Your task to perform on an android device: What's the latest video from Game Informer? Image 0: 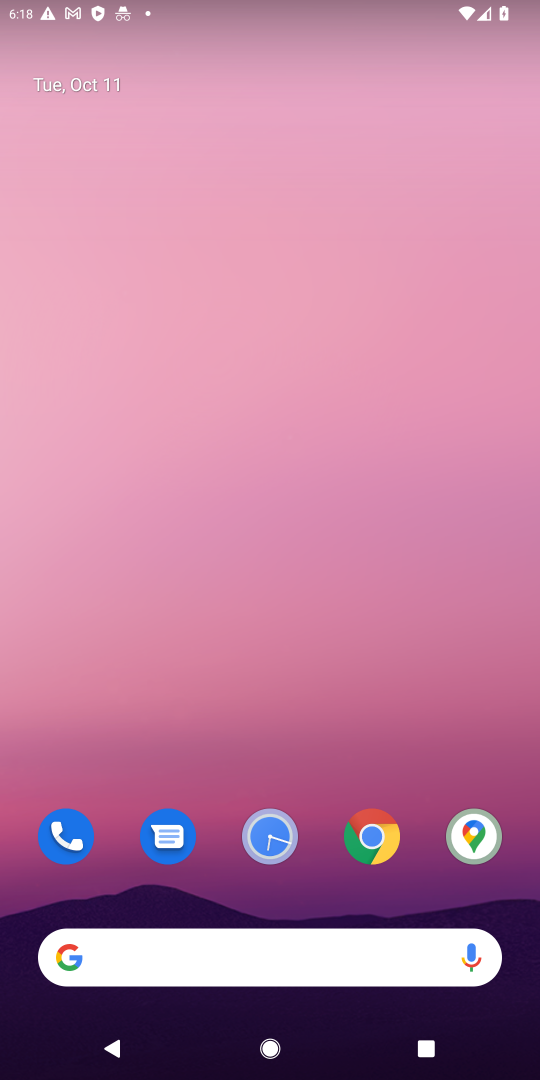
Step 0: drag from (426, 881) to (398, 55)
Your task to perform on an android device: What's the latest video from Game Informer? Image 1: 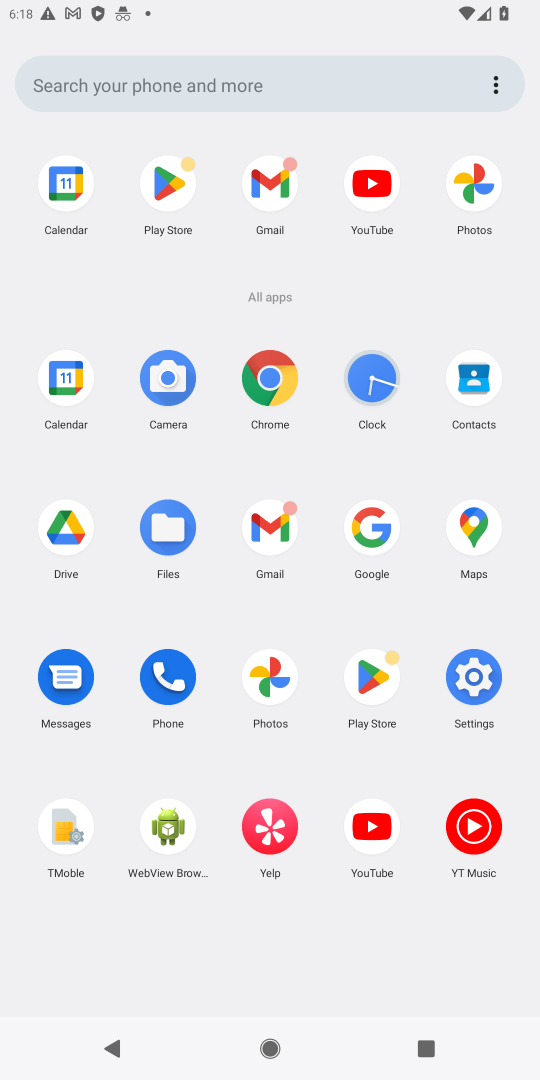
Step 1: click (369, 830)
Your task to perform on an android device: What's the latest video from Game Informer? Image 2: 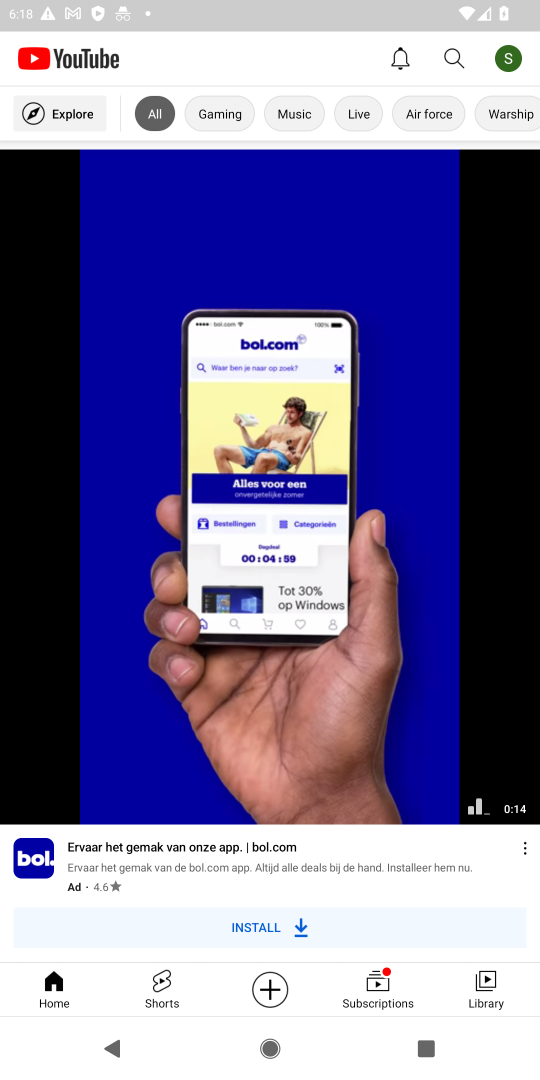
Step 2: click (448, 54)
Your task to perform on an android device: What's the latest video from Game Informer? Image 3: 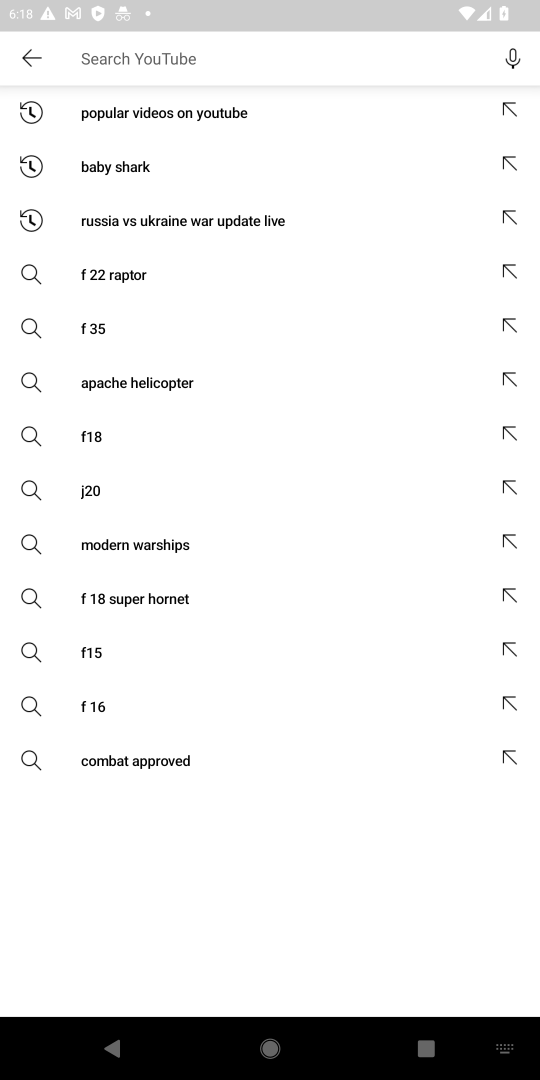
Step 3: type "Game informer"
Your task to perform on an android device: What's the latest video from Game Informer? Image 4: 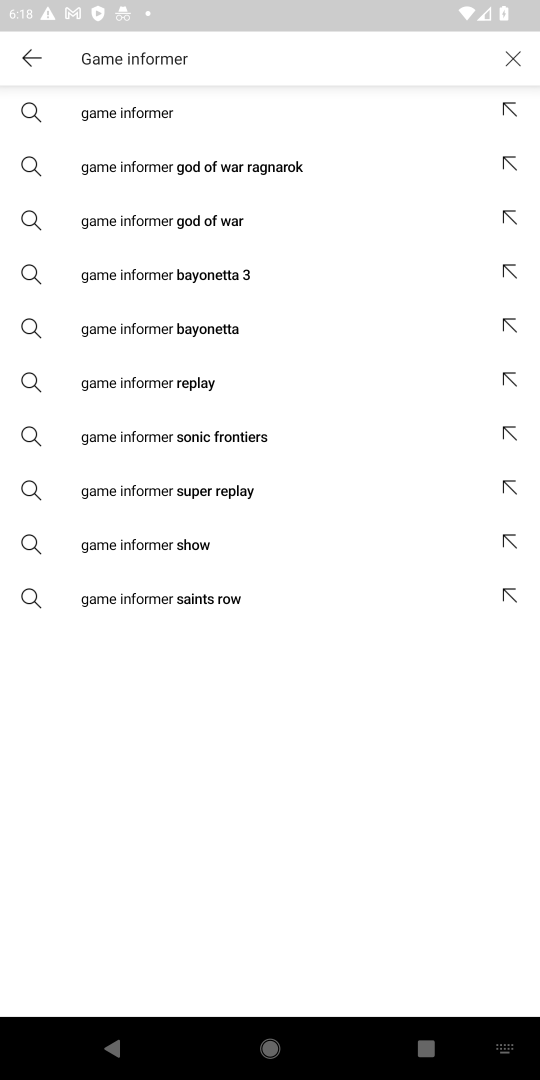
Step 4: click (128, 107)
Your task to perform on an android device: What's the latest video from Game Informer? Image 5: 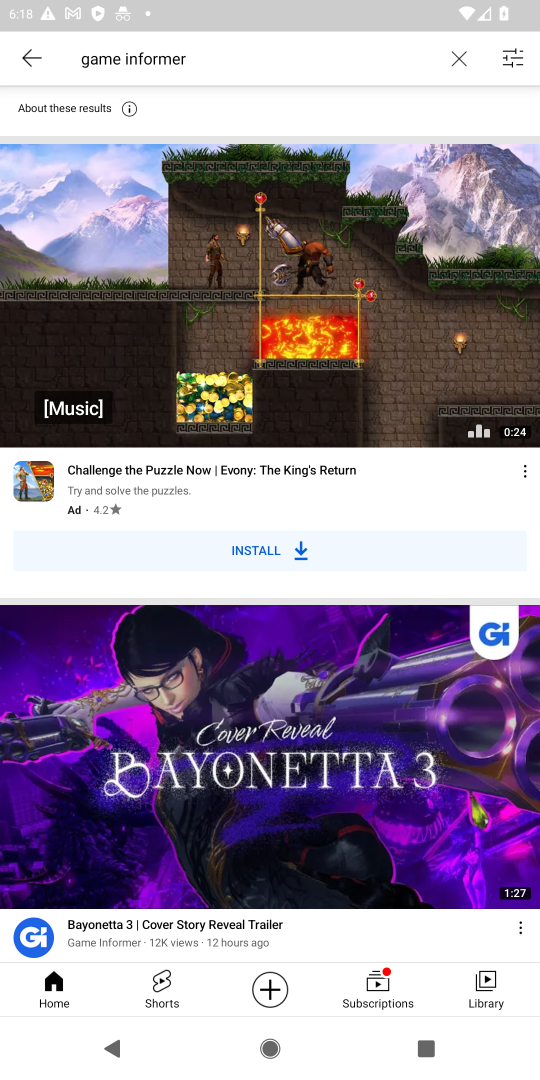
Step 5: drag from (322, 584) to (330, 245)
Your task to perform on an android device: What's the latest video from Game Informer? Image 6: 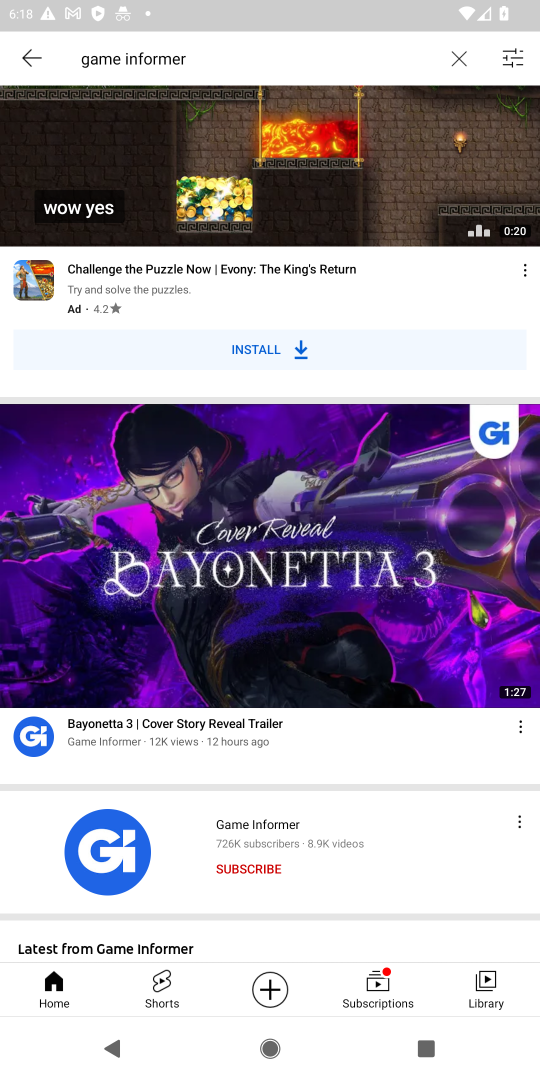
Step 6: click (253, 823)
Your task to perform on an android device: What's the latest video from Game Informer? Image 7: 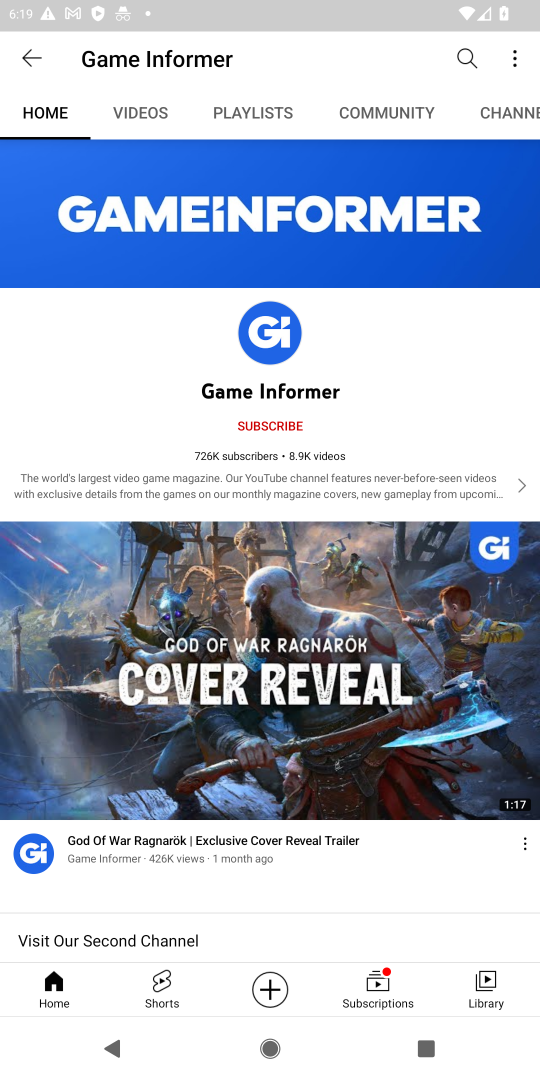
Step 7: click (144, 116)
Your task to perform on an android device: What's the latest video from Game Informer? Image 8: 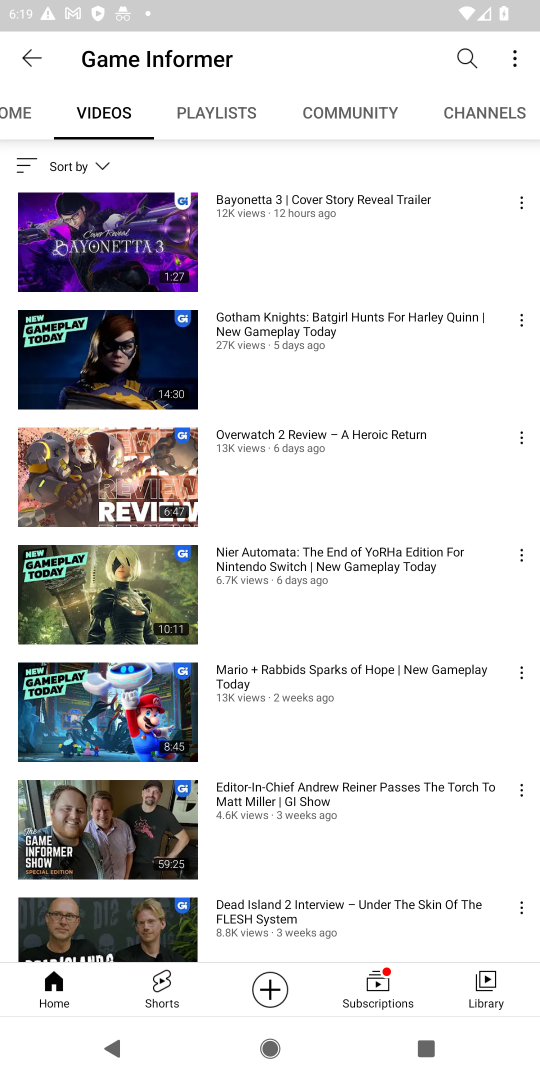
Step 8: click (147, 242)
Your task to perform on an android device: What's the latest video from Game Informer? Image 9: 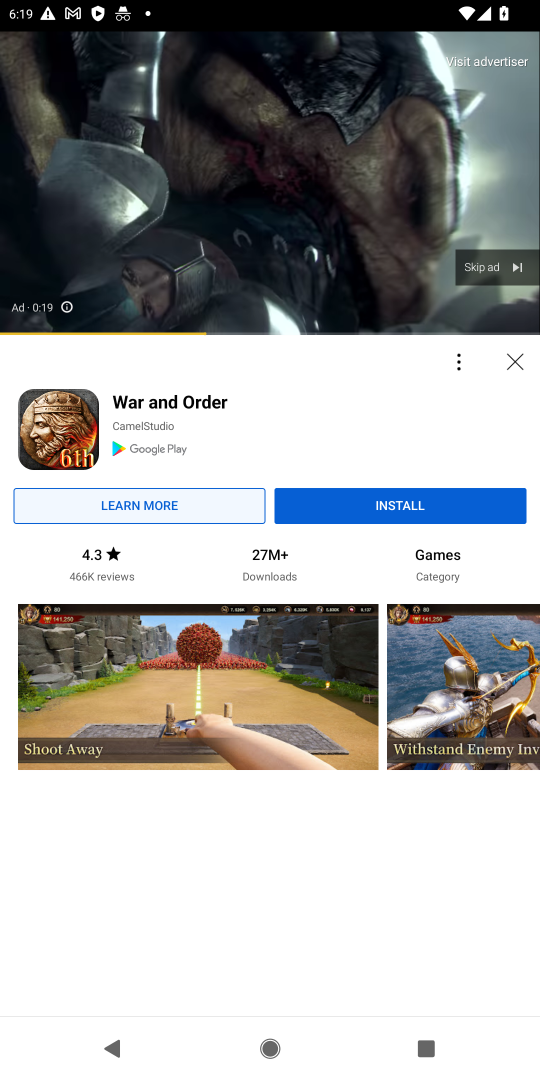
Step 9: click (482, 269)
Your task to perform on an android device: What's the latest video from Game Informer? Image 10: 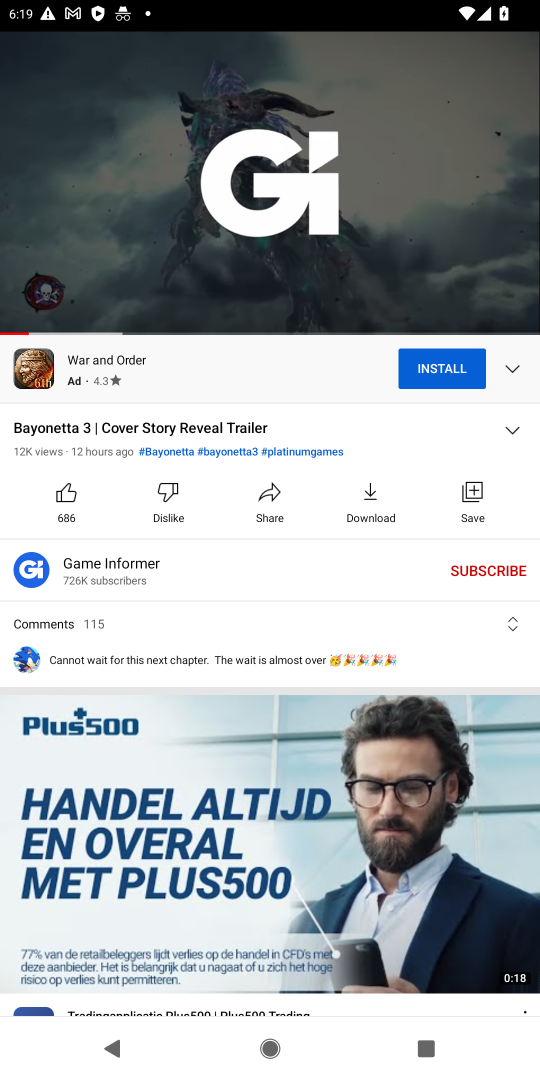
Step 10: click (275, 182)
Your task to perform on an android device: What's the latest video from Game Informer? Image 11: 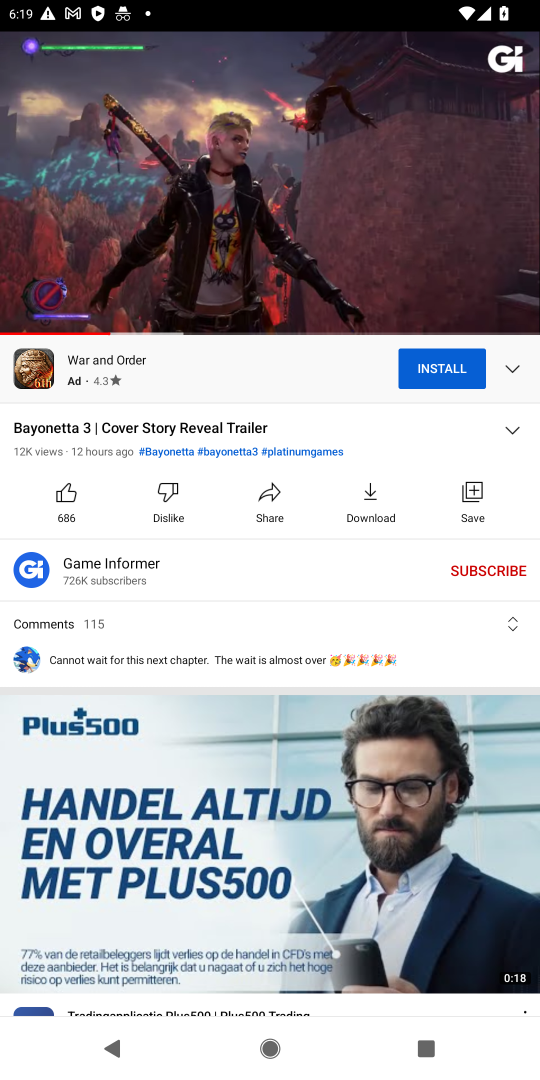
Step 11: click (267, 168)
Your task to perform on an android device: What's the latest video from Game Informer? Image 12: 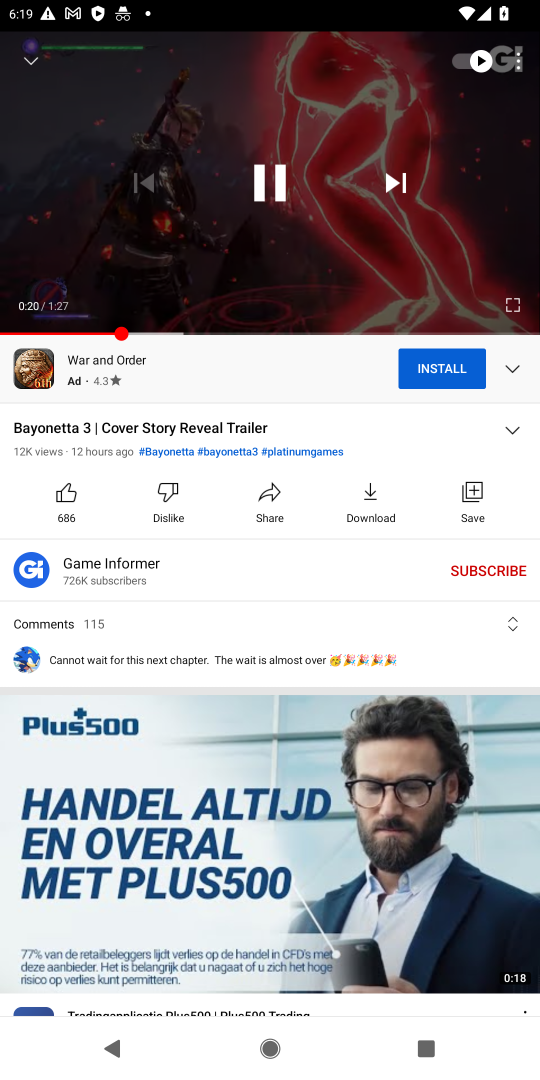
Step 12: click (267, 168)
Your task to perform on an android device: What's the latest video from Game Informer? Image 13: 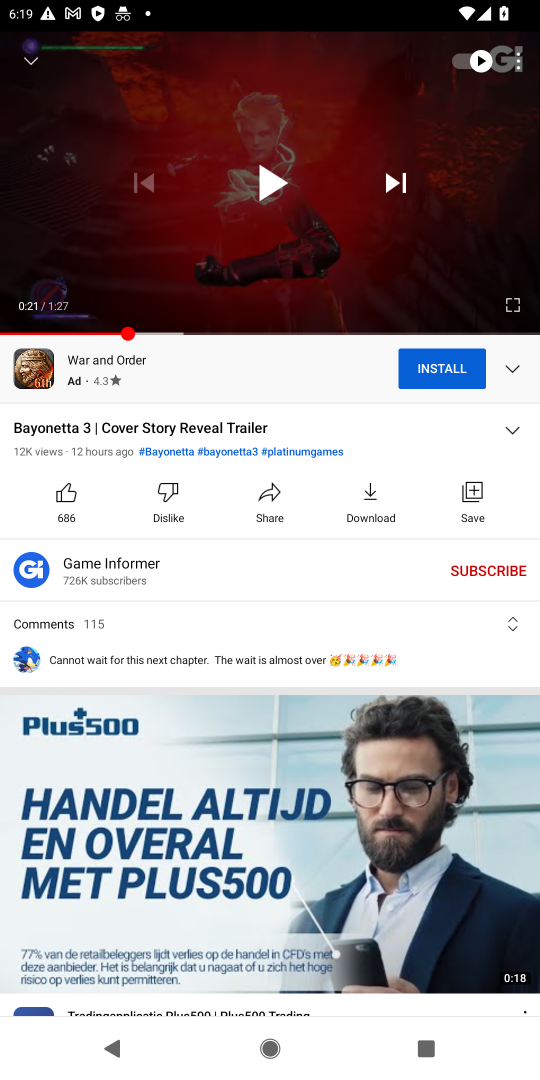
Step 13: task complete